Your task to perform on an android device: delete a single message in the gmail app Image 0: 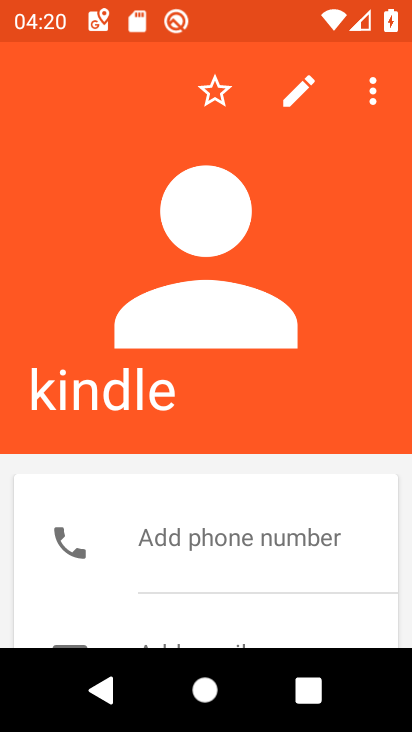
Step 0: press home button
Your task to perform on an android device: delete a single message in the gmail app Image 1: 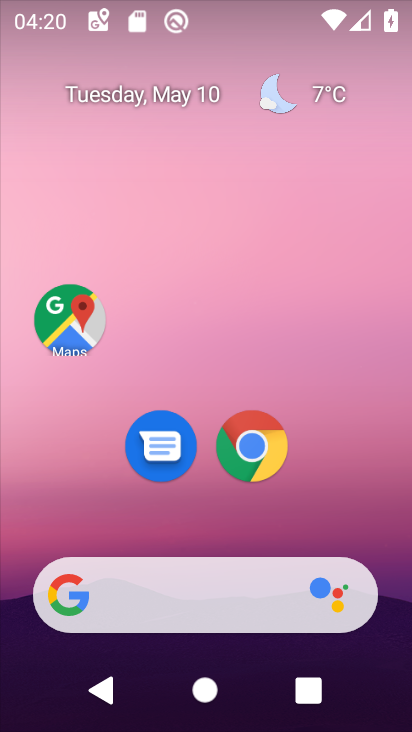
Step 1: drag from (211, 540) to (315, 13)
Your task to perform on an android device: delete a single message in the gmail app Image 2: 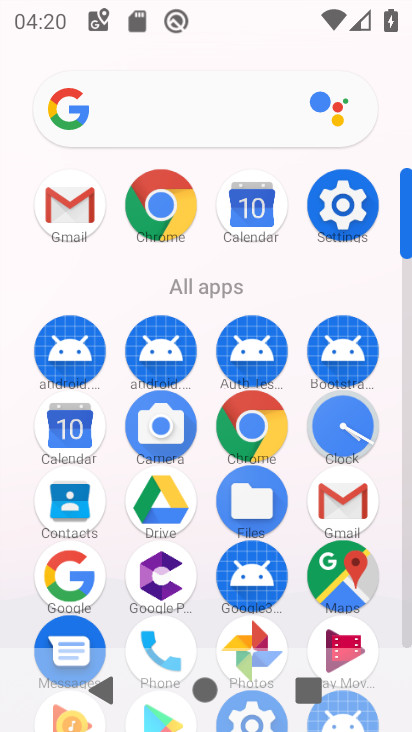
Step 2: click (341, 498)
Your task to perform on an android device: delete a single message in the gmail app Image 3: 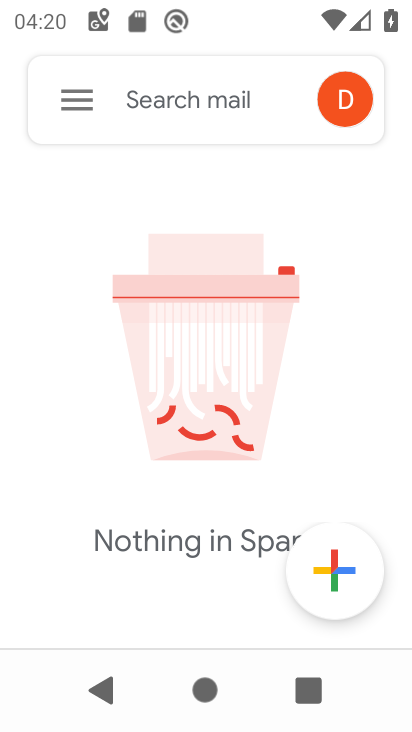
Step 3: click (75, 101)
Your task to perform on an android device: delete a single message in the gmail app Image 4: 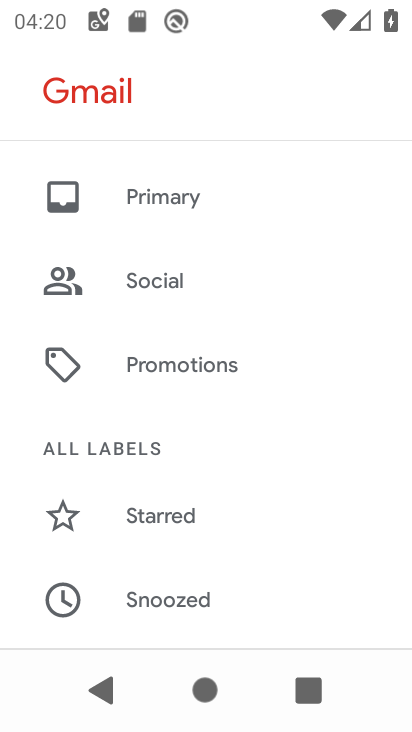
Step 4: drag from (102, 520) to (184, 152)
Your task to perform on an android device: delete a single message in the gmail app Image 5: 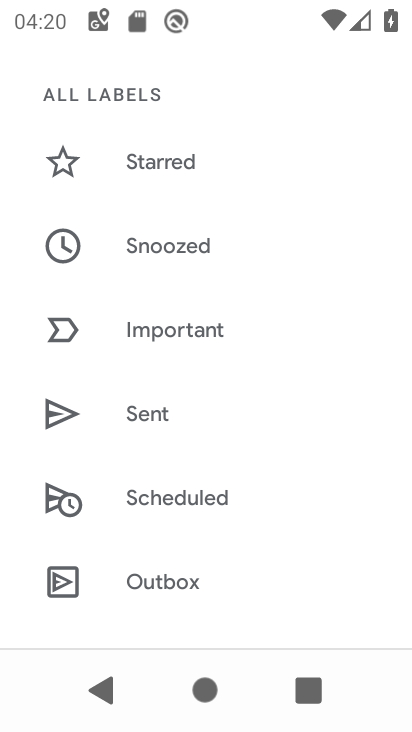
Step 5: drag from (134, 558) to (200, 214)
Your task to perform on an android device: delete a single message in the gmail app Image 6: 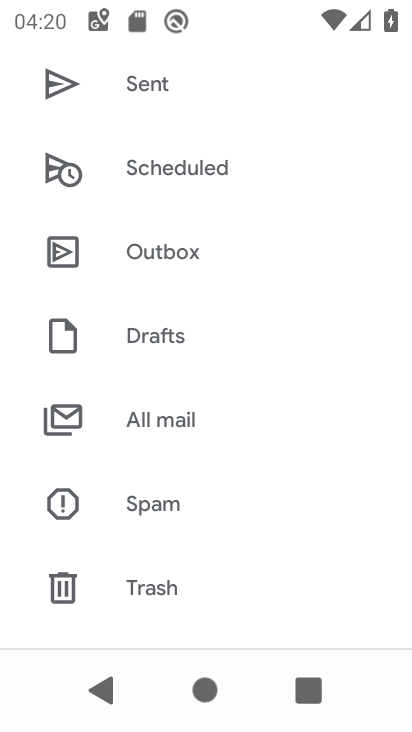
Step 6: click (159, 445)
Your task to perform on an android device: delete a single message in the gmail app Image 7: 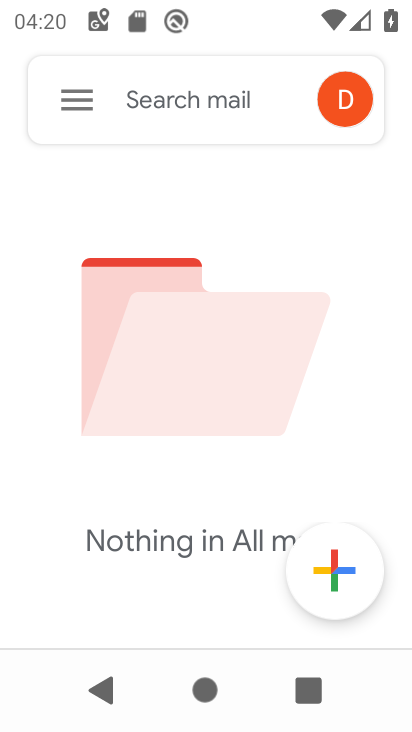
Step 7: task complete